Your task to perform on an android device: Open Google Maps and go to "Timeline" Image 0: 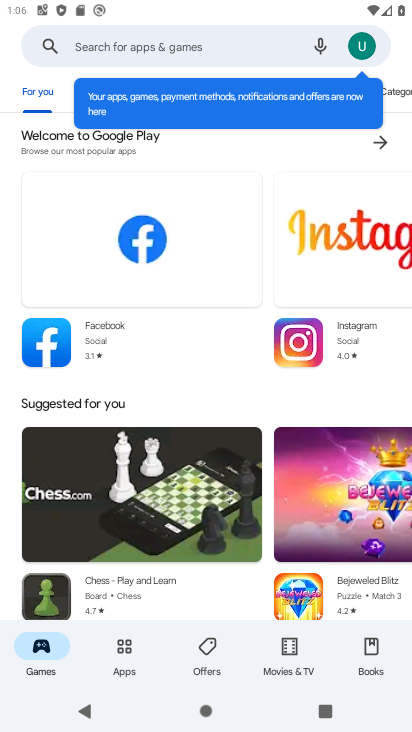
Step 0: press home button
Your task to perform on an android device: Open Google Maps and go to "Timeline" Image 1: 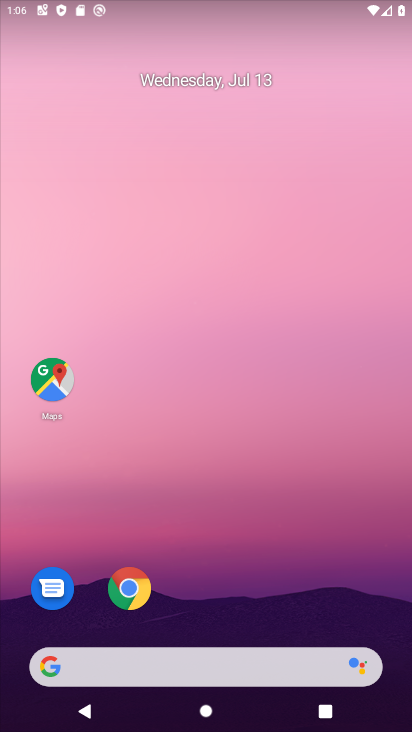
Step 1: click (58, 383)
Your task to perform on an android device: Open Google Maps and go to "Timeline" Image 2: 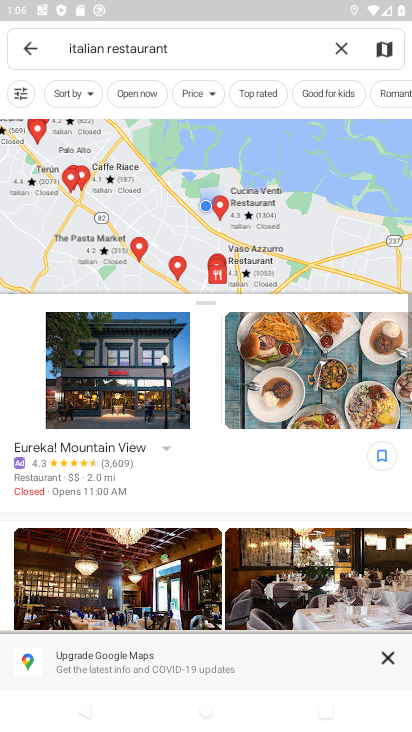
Step 2: click (27, 51)
Your task to perform on an android device: Open Google Maps and go to "Timeline" Image 3: 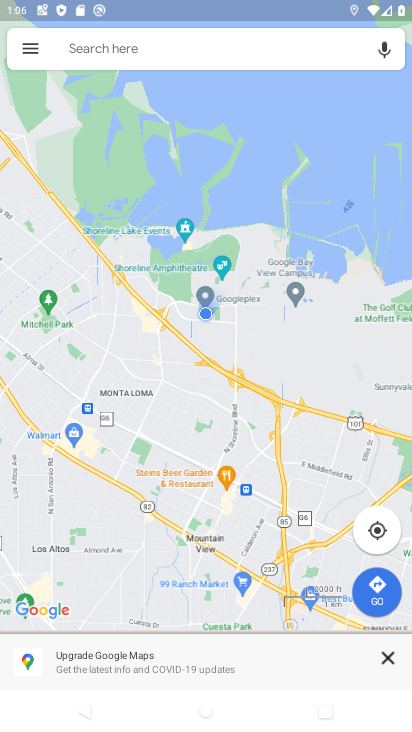
Step 3: click (27, 51)
Your task to perform on an android device: Open Google Maps and go to "Timeline" Image 4: 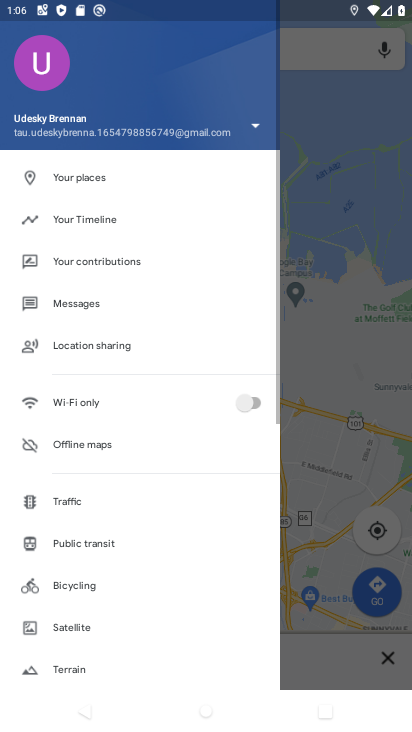
Step 4: click (80, 217)
Your task to perform on an android device: Open Google Maps and go to "Timeline" Image 5: 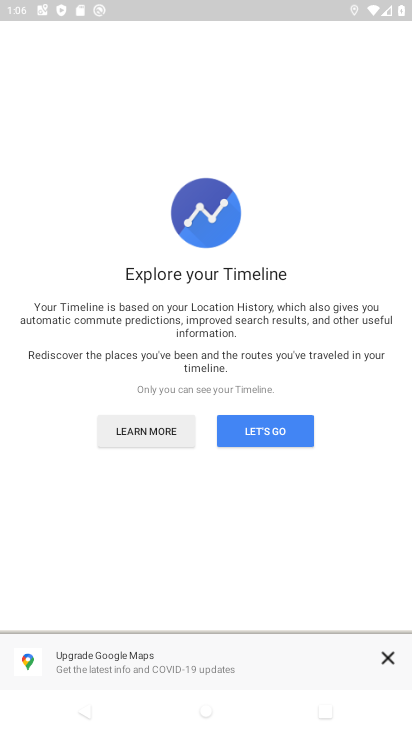
Step 5: click (248, 429)
Your task to perform on an android device: Open Google Maps and go to "Timeline" Image 6: 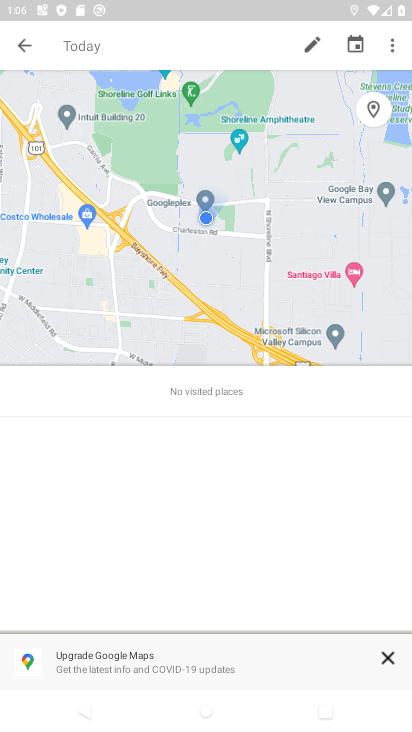
Step 6: task complete